Your task to perform on an android device: Go to notification settings Image 0: 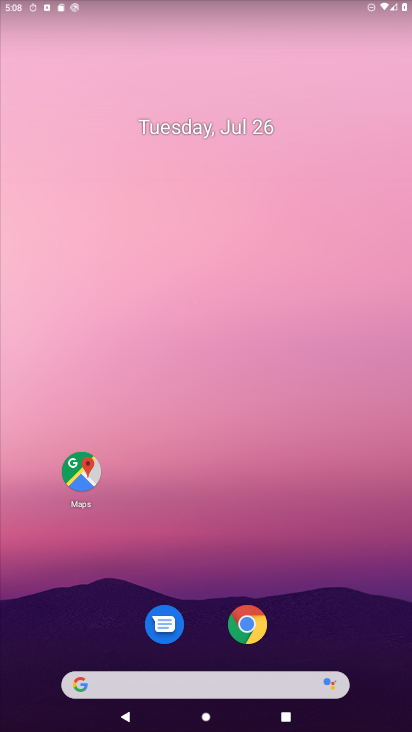
Step 0: drag from (266, 694) to (339, 180)
Your task to perform on an android device: Go to notification settings Image 1: 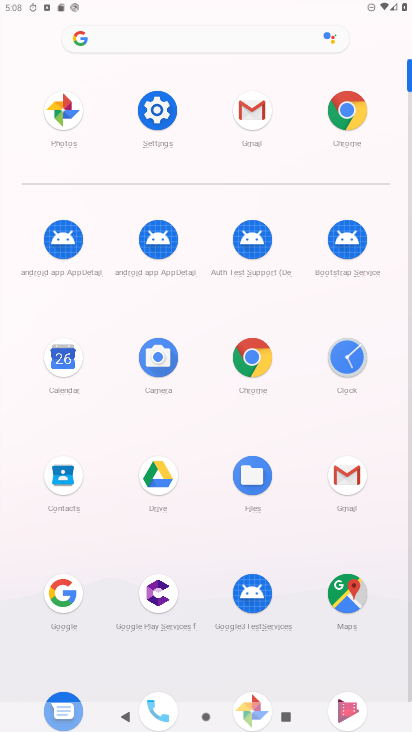
Step 1: click (168, 104)
Your task to perform on an android device: Go to notification settings Image 2: 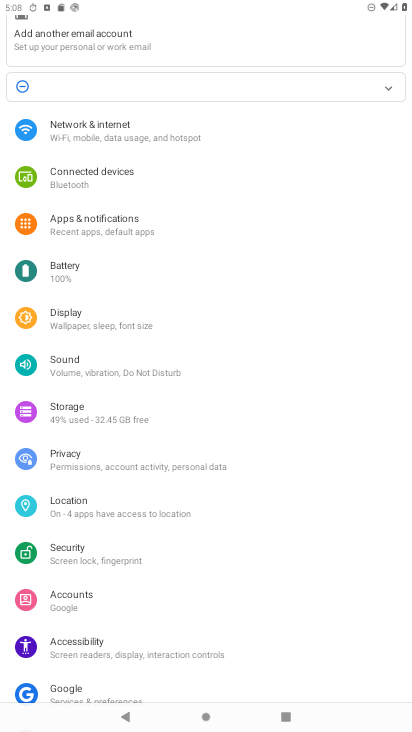
Step 2: click (120, 218)
Your task to perform on an android device: Go to notification settings Image 3: 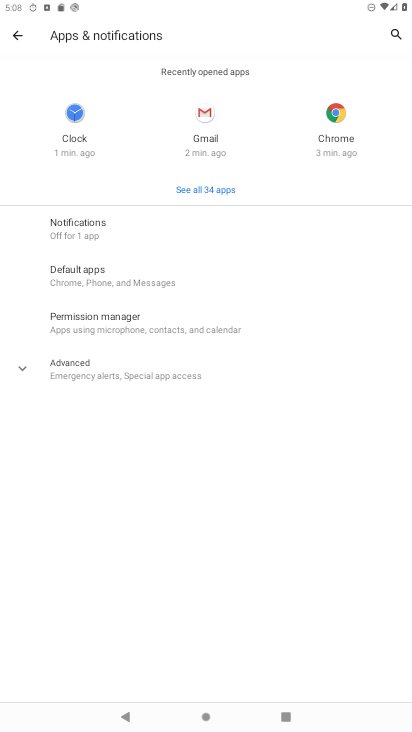
Step 3: click (64, 230)
Your task to perform on an android device: Go to notification settings Image 4: 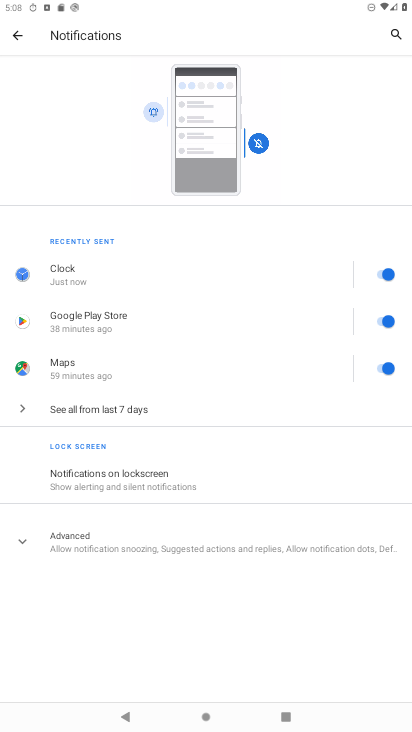
Step 4: task complete